Your task to perform on an android device: turn off translation in the chrome app Image 0: 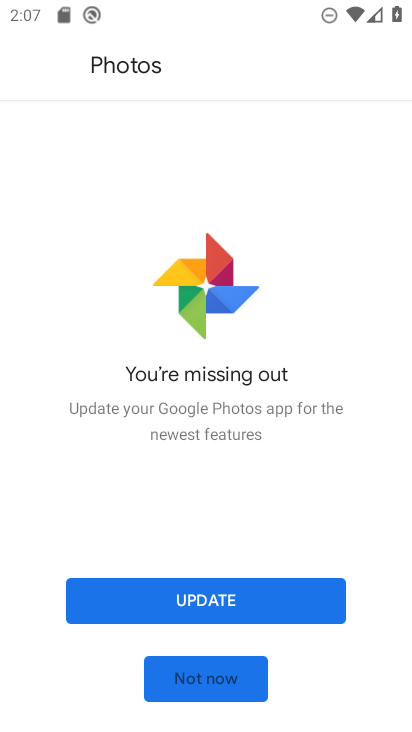
Step 0: press home button
Your task to perform on an android device: turn off translation in the chrome app Image 1: 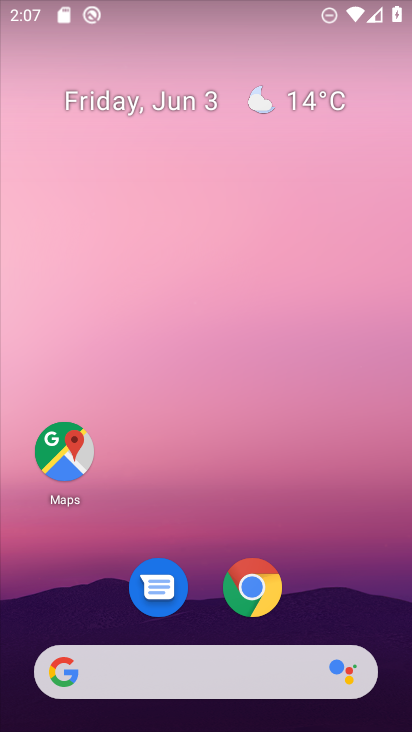
Step 1: click (248, 581)
Your task to perform on an android device: turn off translation in the chrome app Image 2: 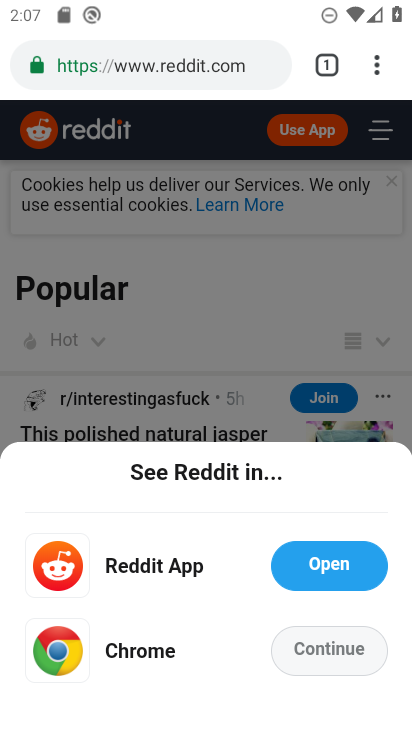
Step 2: click (372, 79)
Your task to perform on an android device: turn off translation in the chrome app Image 3: 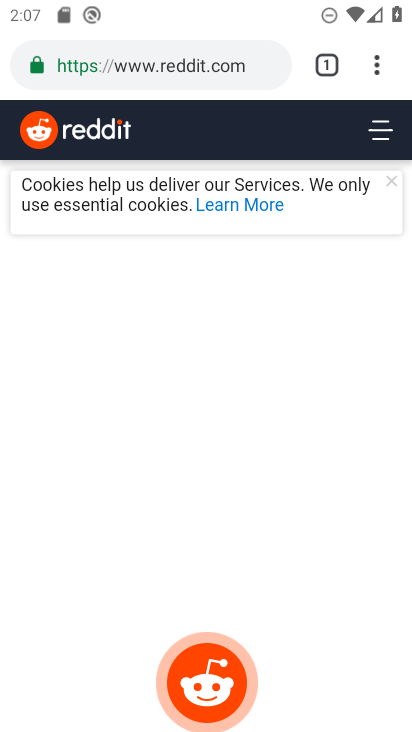
Step 3: click (383, 66)
Your task to perform on an android device: turn off translation in the chrome app Image 4: 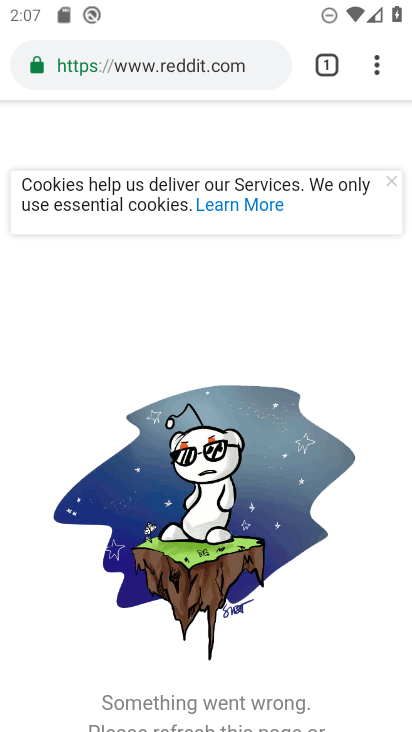
Step 4: click (381, 67)
Your task to perform on an android device: turn off translation in the chrome app Image 5: 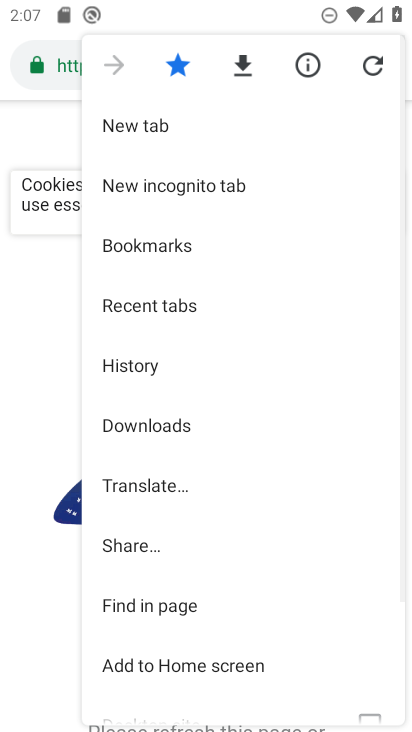
Step 5: click (130, 232)
Your task to perform on an android device: turn off translation in the chrome app Image 6: 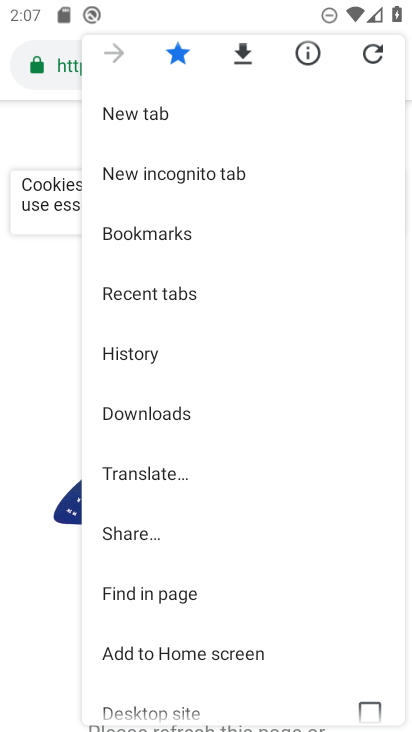
Step 6: drag from (164, 687) to (166, 288)
Your task to perform on an android device: turn off translation in the chrome app Image 7: 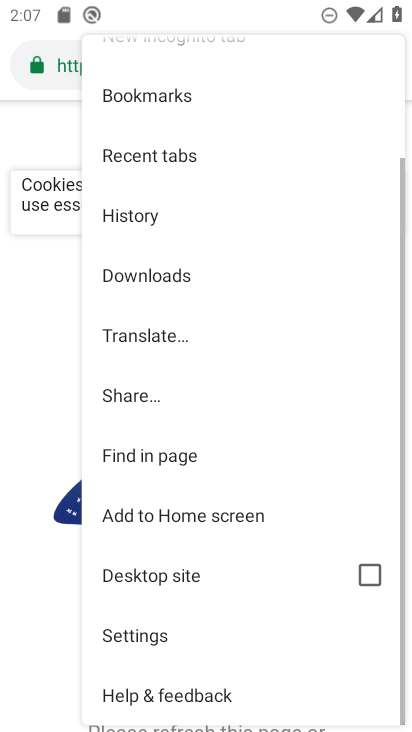
Step 7: click (190, 628)
Your task to perform on an android device: turn off translation in the chrome app Image 8: 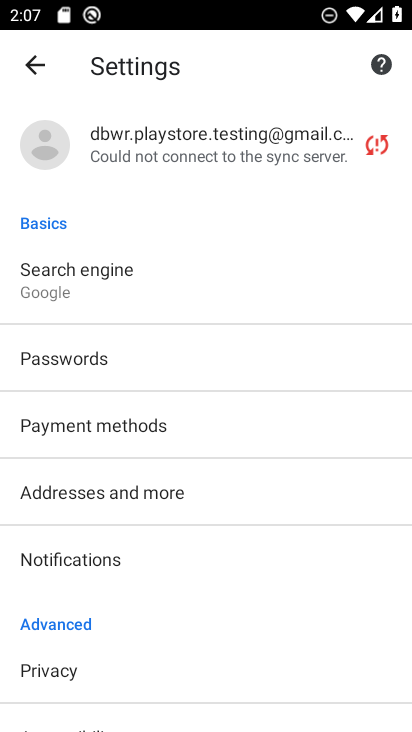
Step 8: drag from (125, 684) to (149, 292)
Your task to perform on an android device: turn off translation in the chrome app Image 9: 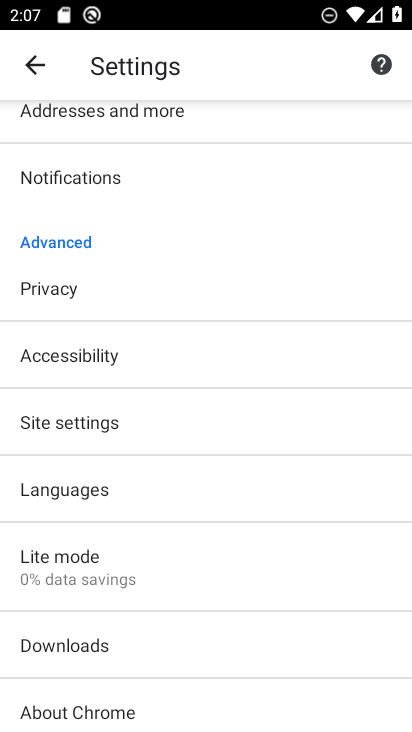
Step 9: click (97, 499)
Your task to perform on an android device: turn off translation in the chrome app Image 10: 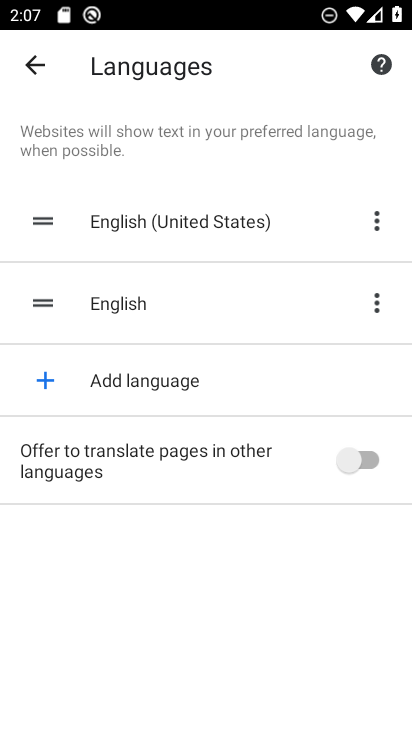
Step 10: task complete